Your task to perform on an android device: Google the capital of Bolivia Image 0: 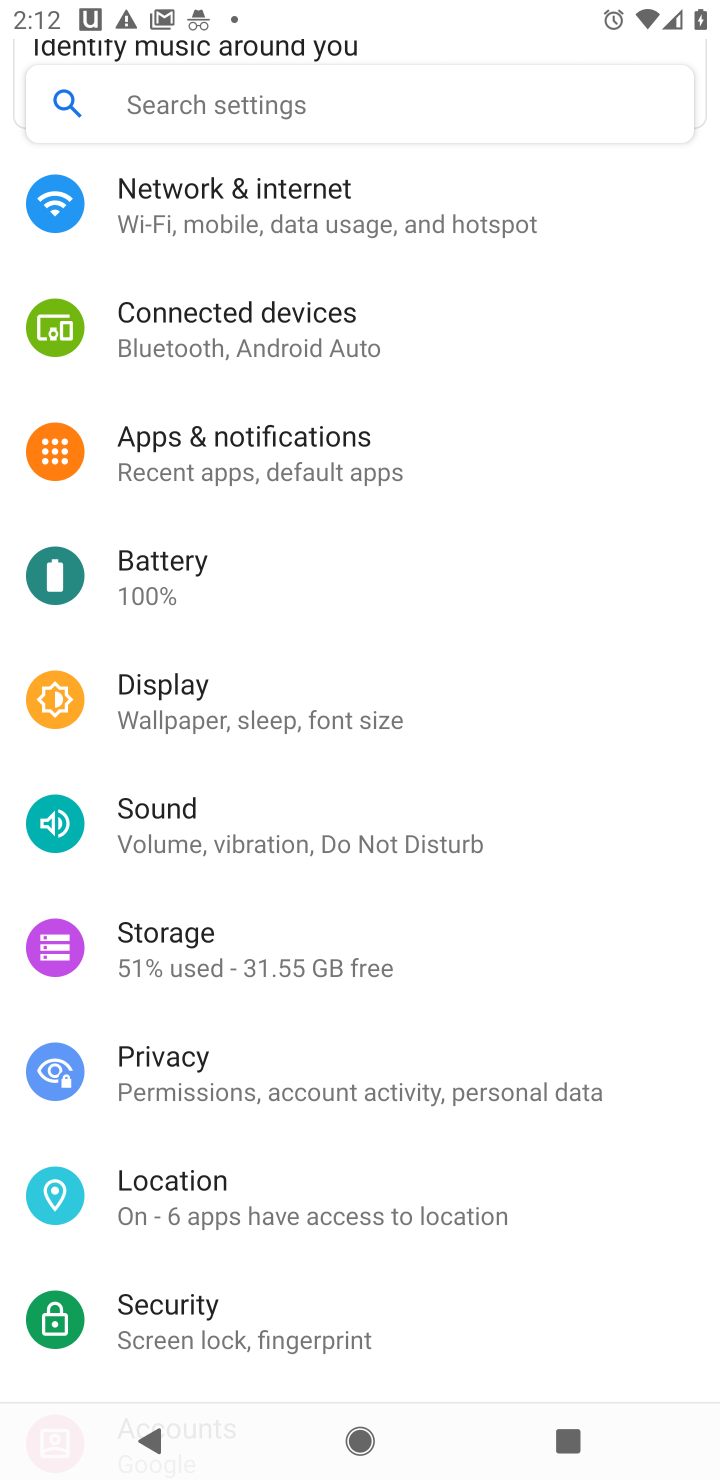
Step 0: press home button
Your task to perform on an android device: Google the capital of Bolivia Image 1: 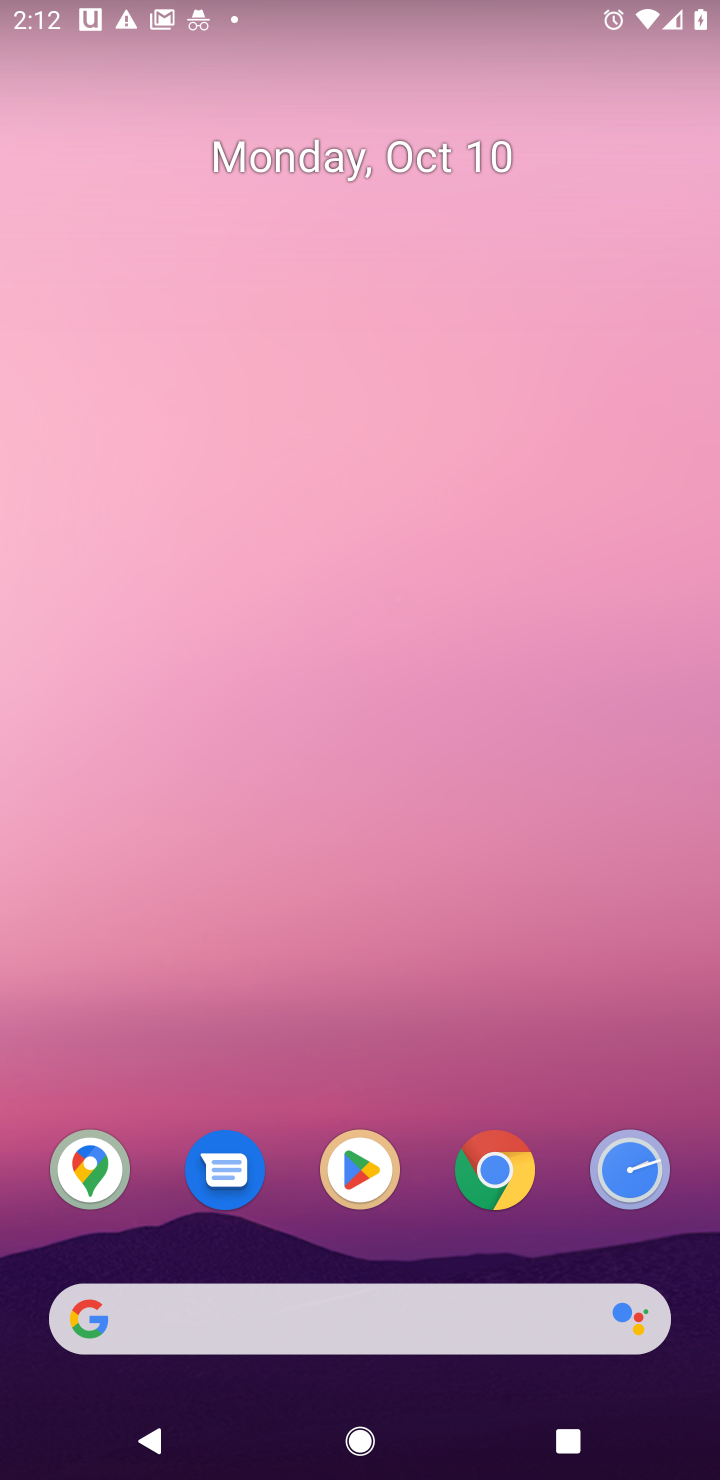
Step 1: click (501, 1174)
Your task to perform on an android device: Google the capital of Bolivia Image 2: 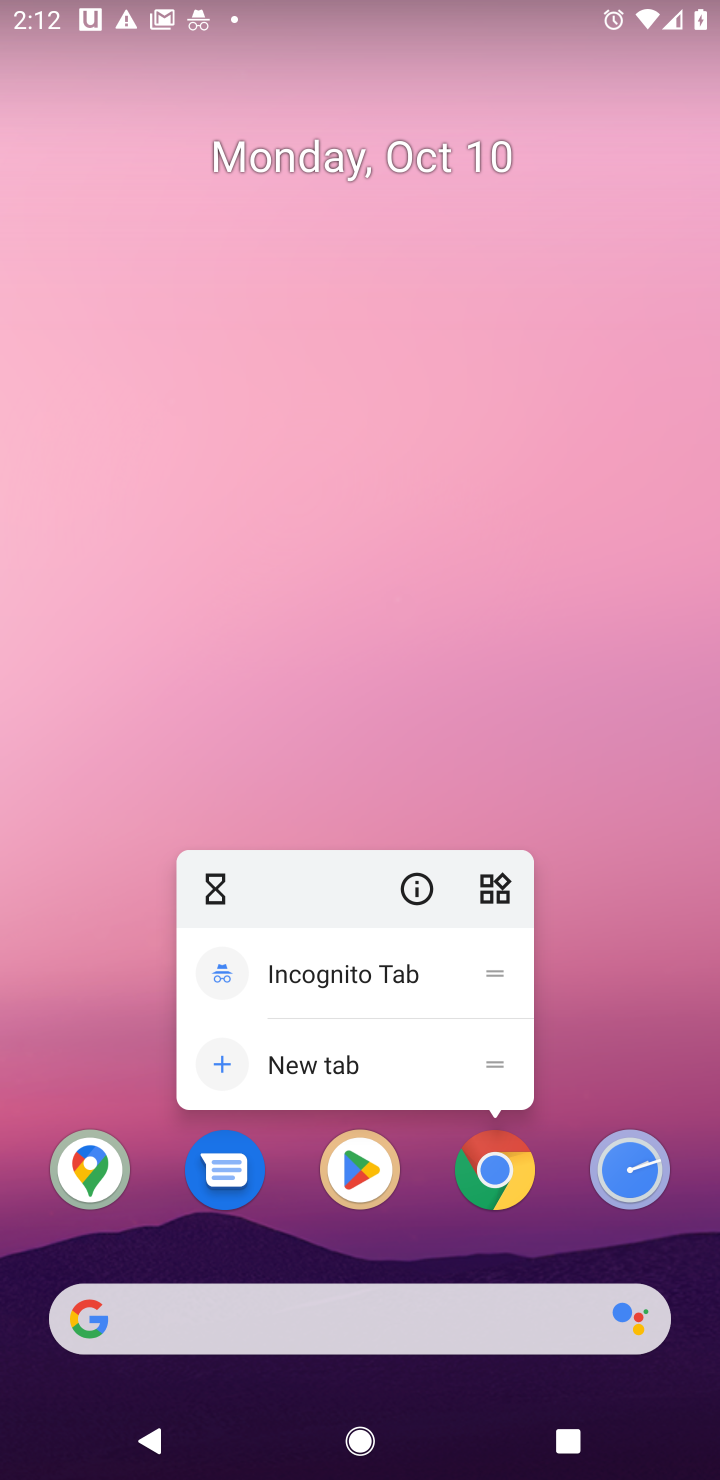
Step 2: click (511, 1200)
Your task to perform on an android device: Google the capital of Bolivia Image 3: 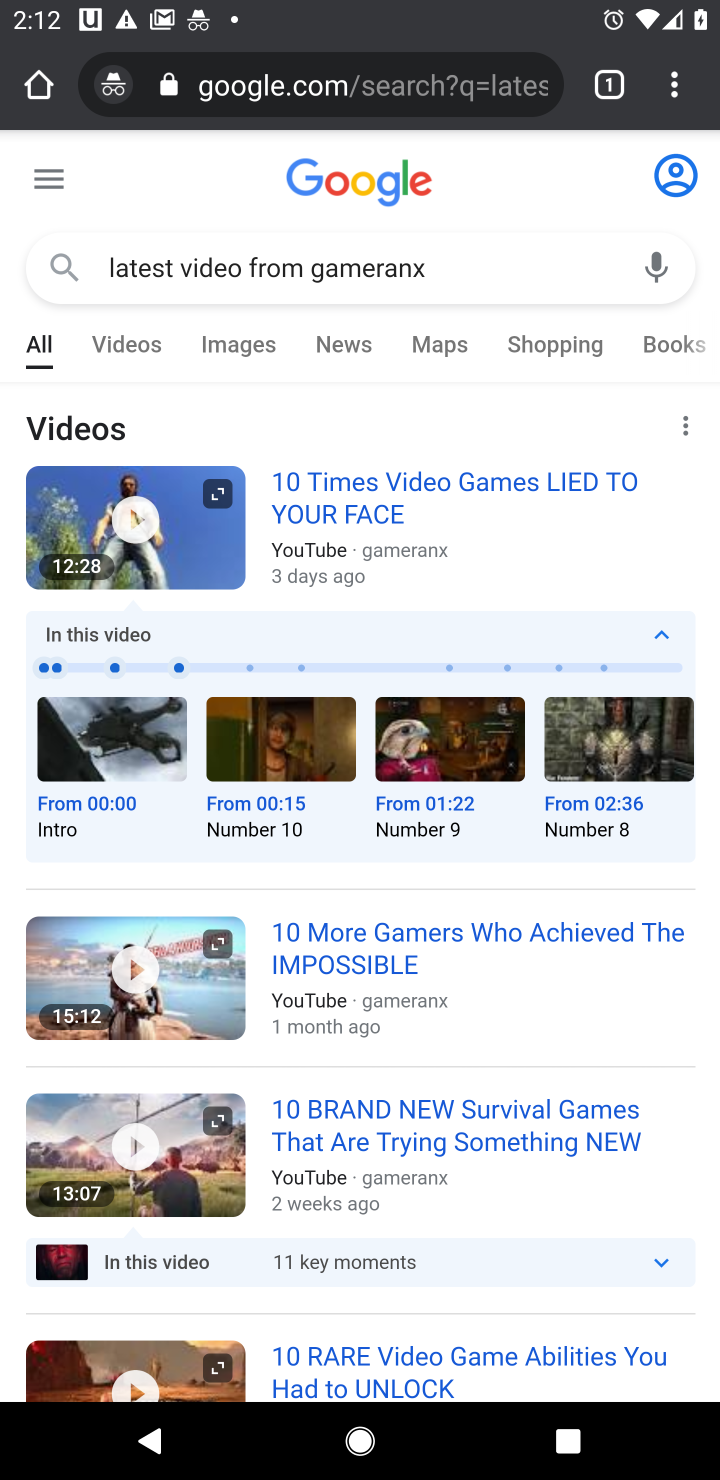
Step 3: click (366, 90)
Your task to perform on an android device: Google the capital of Bolivia Image 4: 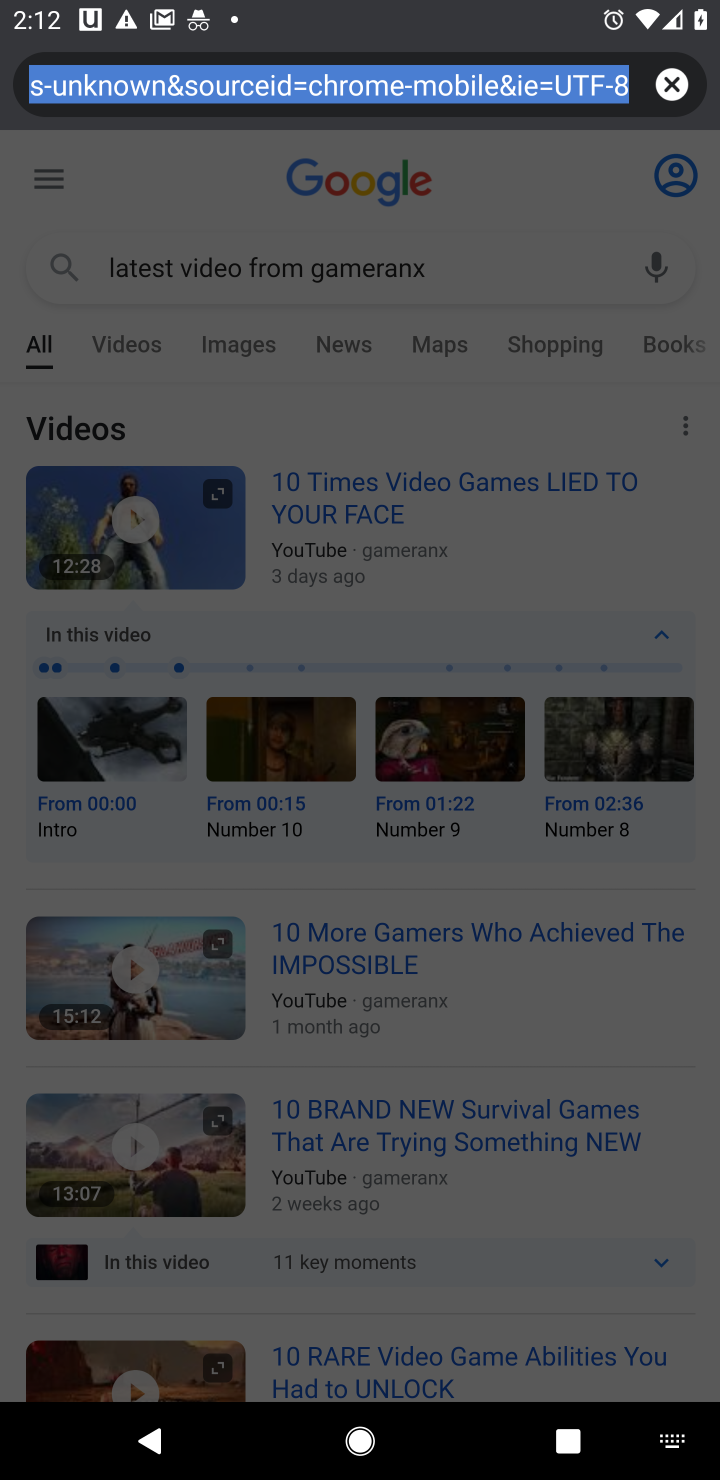
Step 4: click (671, 88)
Your task to perform on an android device: Google the capital of Bolivia Image 5: 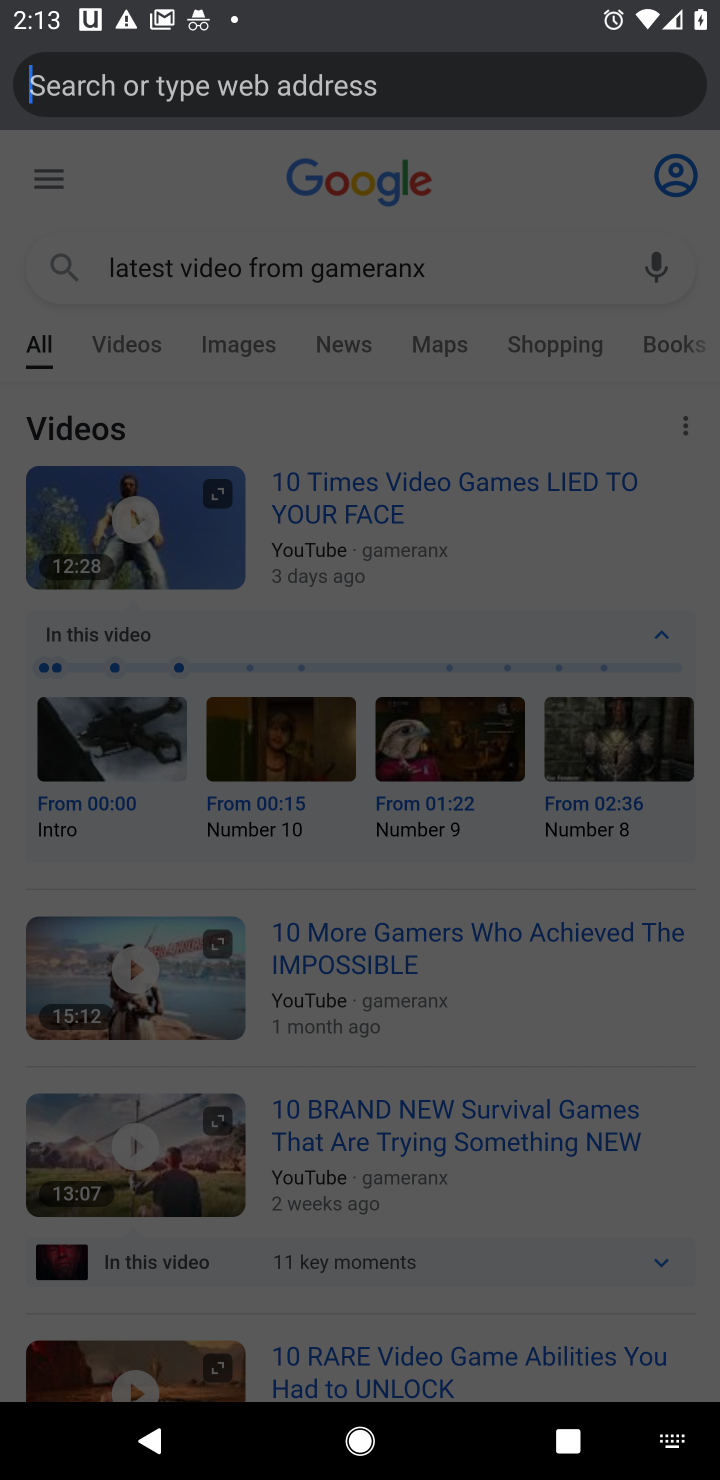
Step 5: type "google the capital of bolovia"
Your task to perform on an android device: Google the capital of Bolivia Image 6: 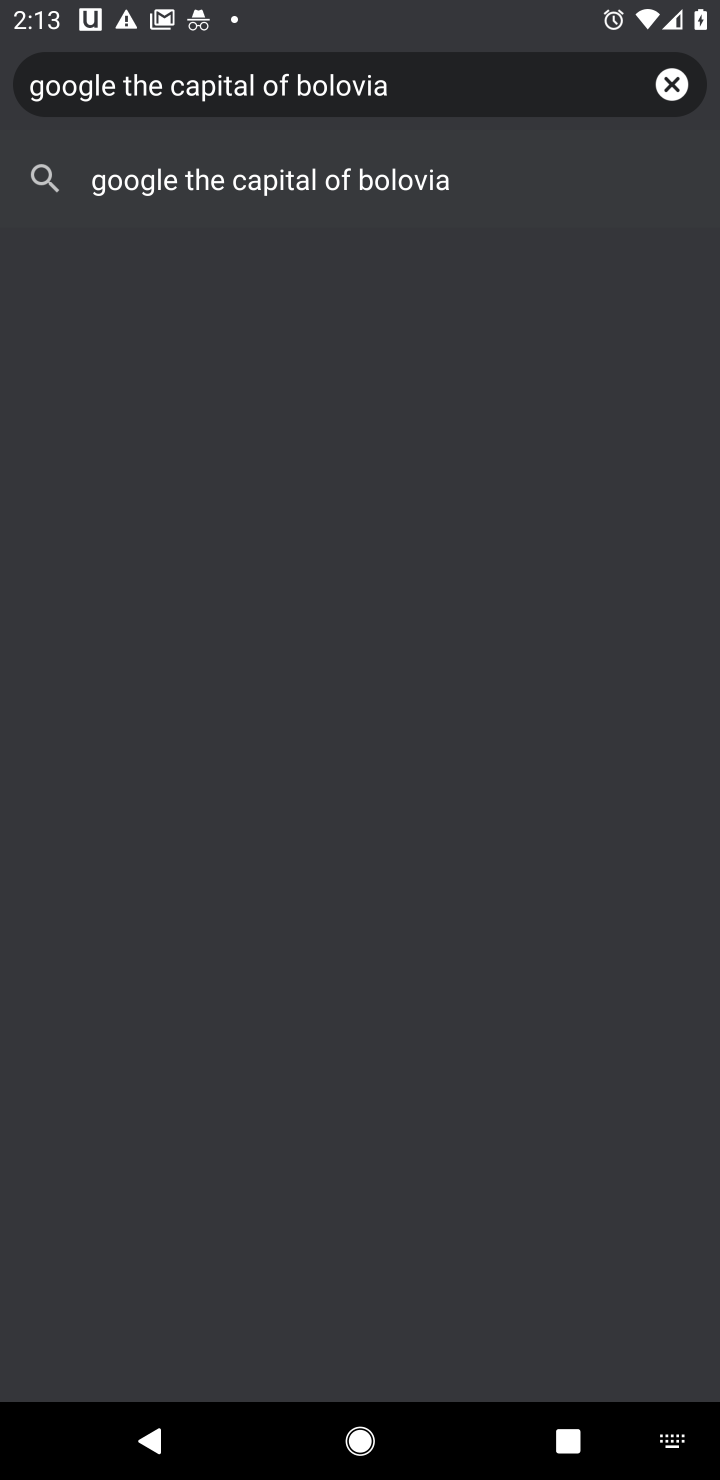
Step 6: click (253, 174)
Your task to perform on an android device: Google the capital of Bolivia Image 7: 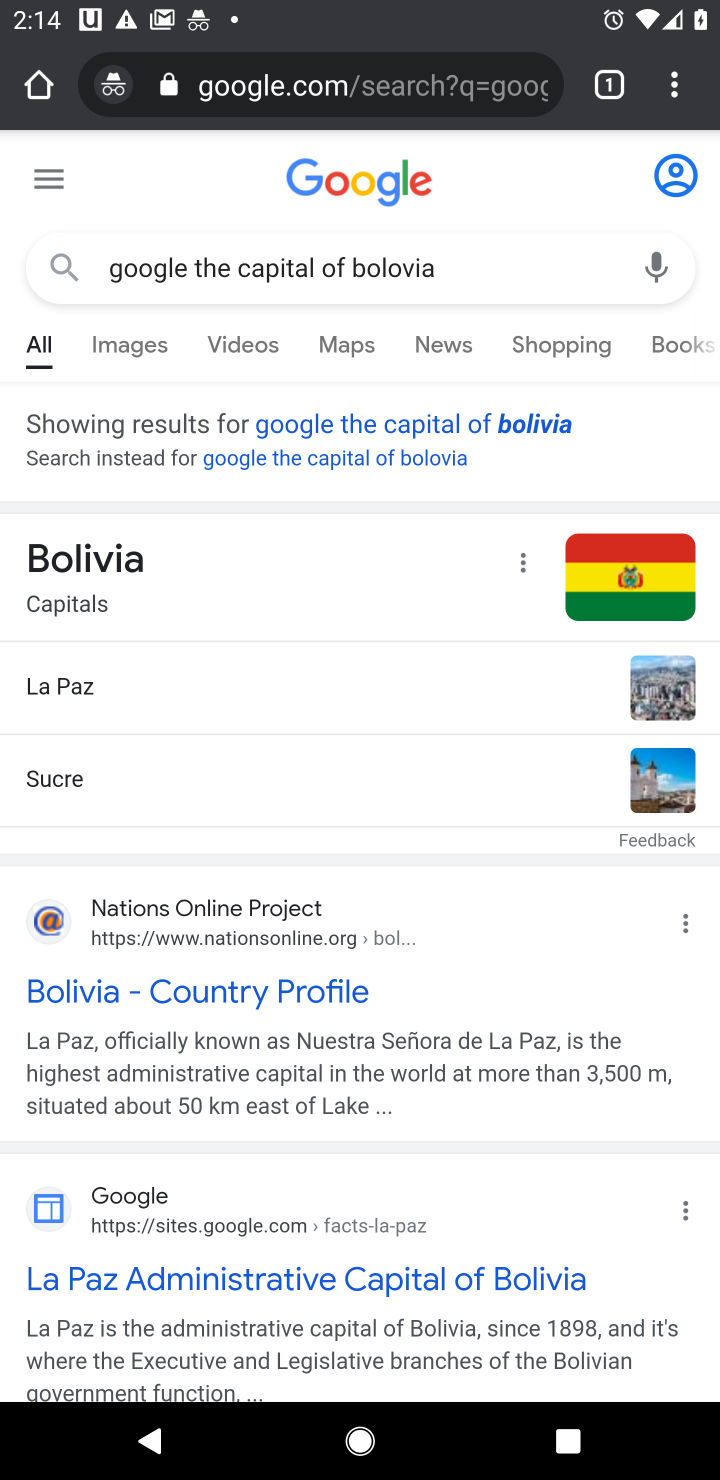
Step 7: task complete